Your task to perform on an android device: What's the weather going to be this weekend? Image 0: 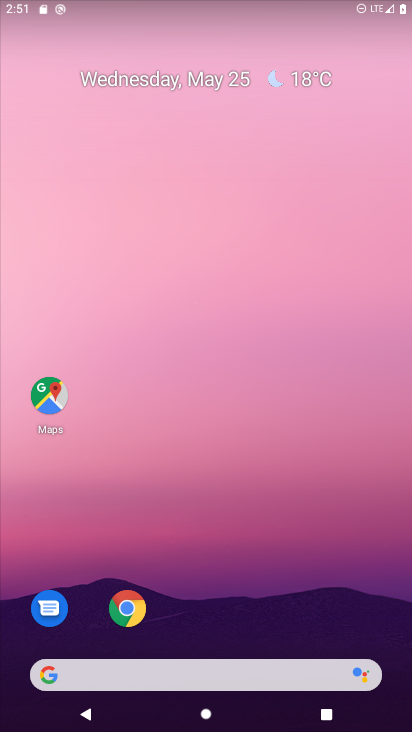
Step 0: click (299, 74)
Your task to perform on an android device: What's the weather going to be this weekend? Image 1: 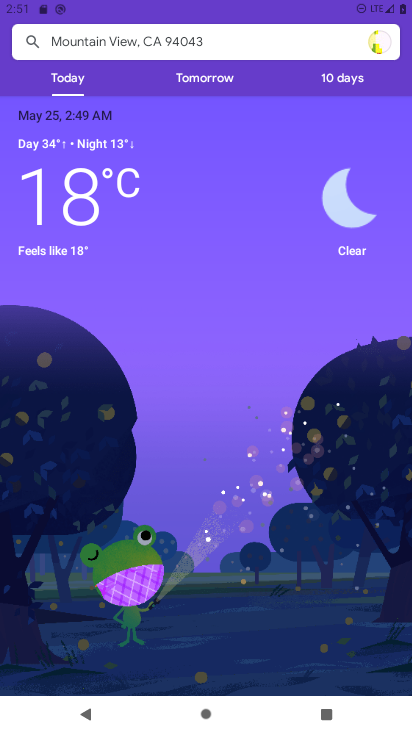
Step 1: click (335, 81)
Your task to perform on an android device: What's the weather going to be this weekend? Image 2: 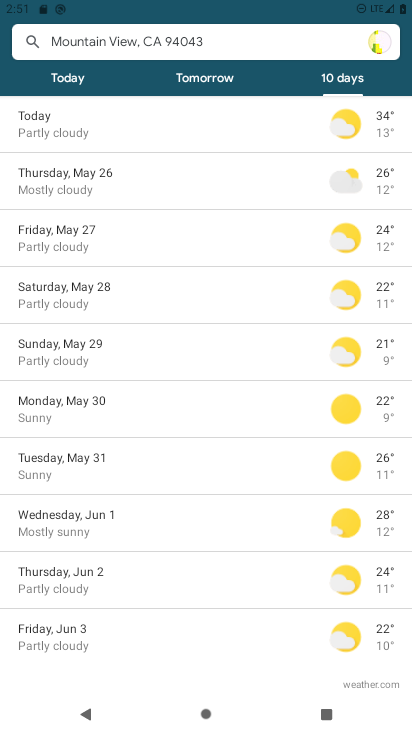
Step 2: task complete